Your task to perform on an android device: refresh tabs in the chrome app Image 0: 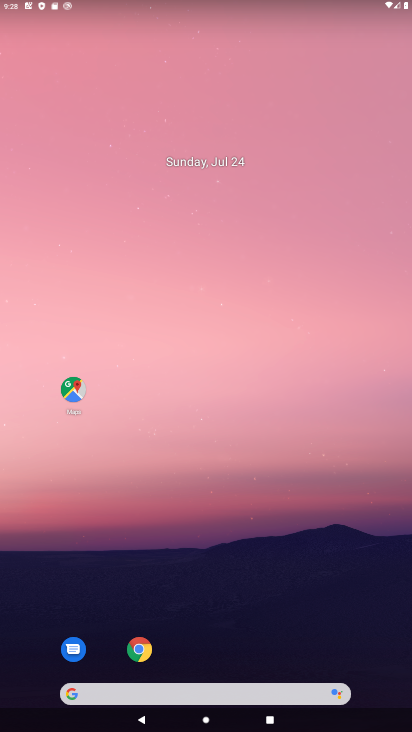
Step 0: click (139, 654)
Your task to perform on an android device: refresh tabs in the chrome app Image 1: 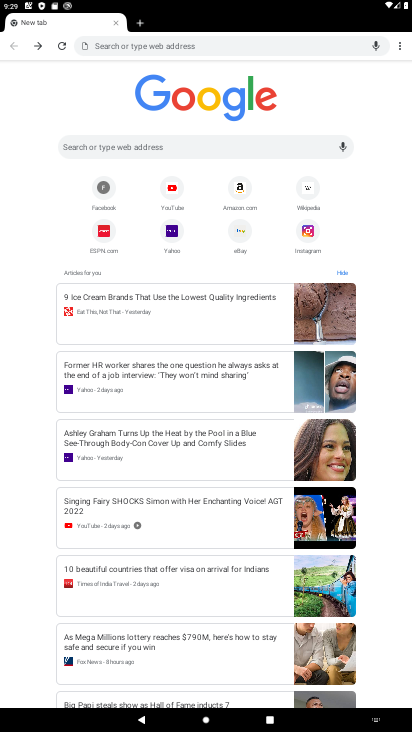
Step 1: click (403, 48)
Your task to perform on an android device: refresh tabs in the chrome app Image 2: 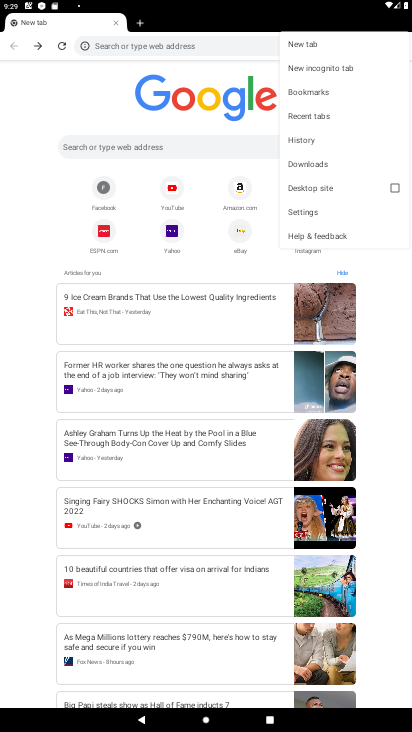
Step 2: click (61, 49)
Your task to perform on an android device: refresh tabs in the chrome app Image 3: 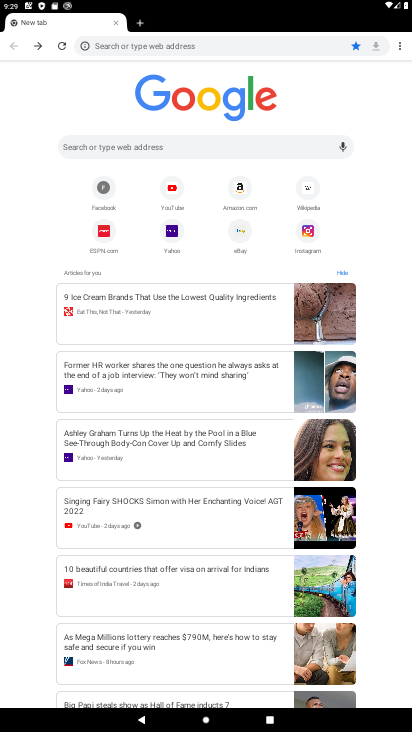
Step 3: click (61, 49)
Your task to perform on an android device: refresh tabs in the chrome app Image 4: 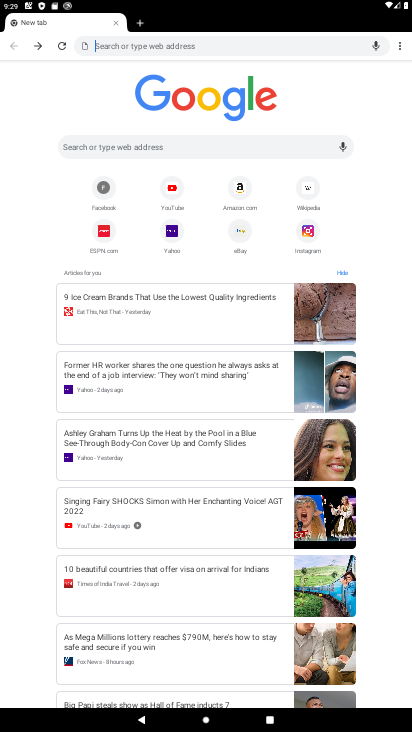
Step 4: task complete